Your task to perform on an android device: Open settings on Google Maps Image 0: 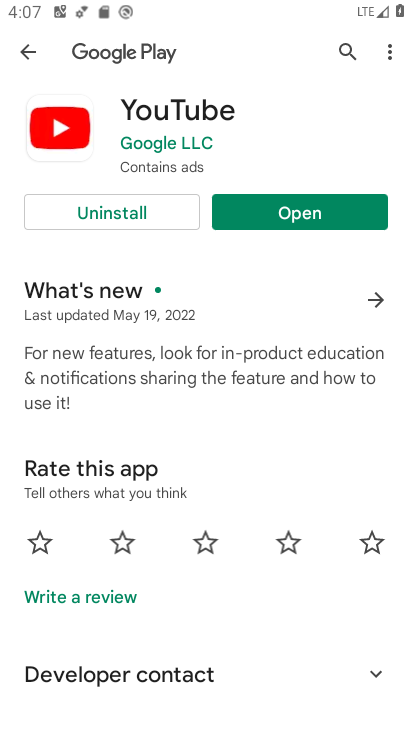
Step 0: press home button
Your task to perform on an android device: Open settings on Google Maps Image 1: 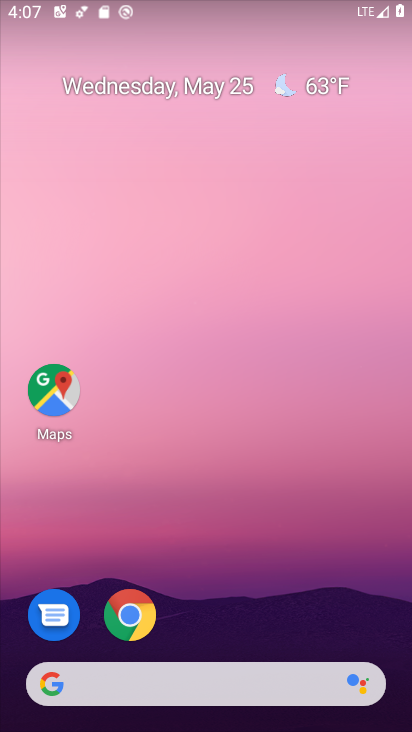
Step 1: click (57, 378)
Your task to perform on an android device: Open settings on Google Maps Image 2: 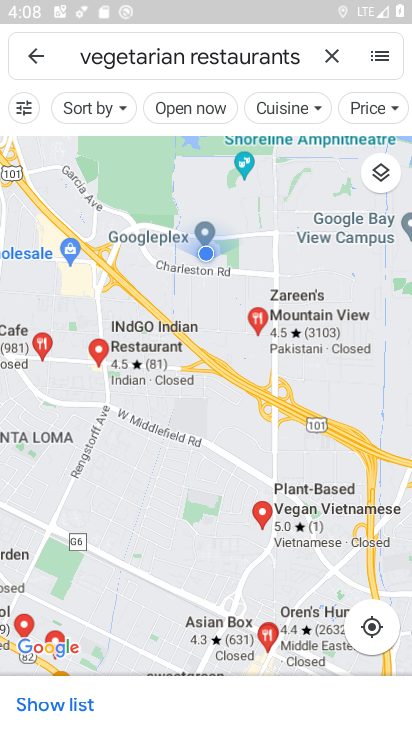
Step 2: click (334, 47)
Your task to perform on an android device: Open settings on Google Maps Image 3: 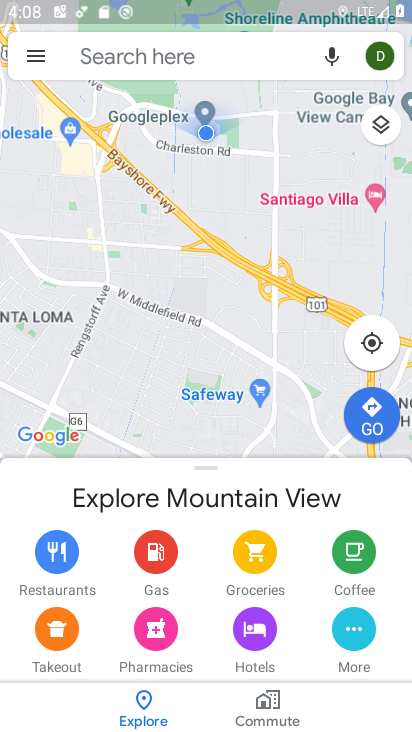
Step 3: click (38, 51)
Your task to perform on an android device: Open settings on Google Maps Image 4: 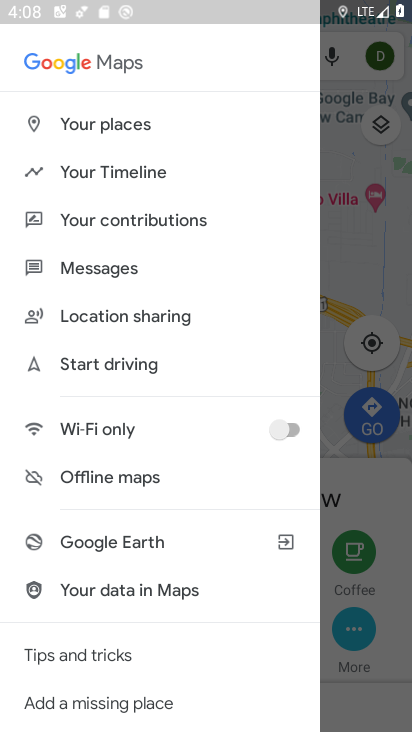
Step 4: drag from (165, 607) to (168, 23)
Your task to perform on an android device: Open settings on Google Maps Image 5: 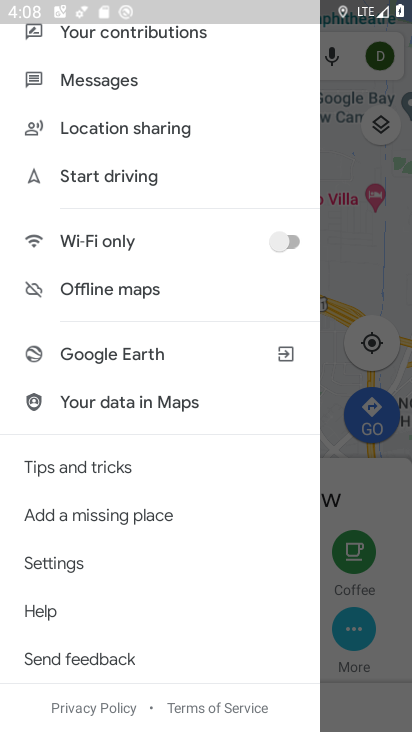
Step 5: click (74, 569)
Your task to perform on an android device: Open settings on Google Maps Image 6: 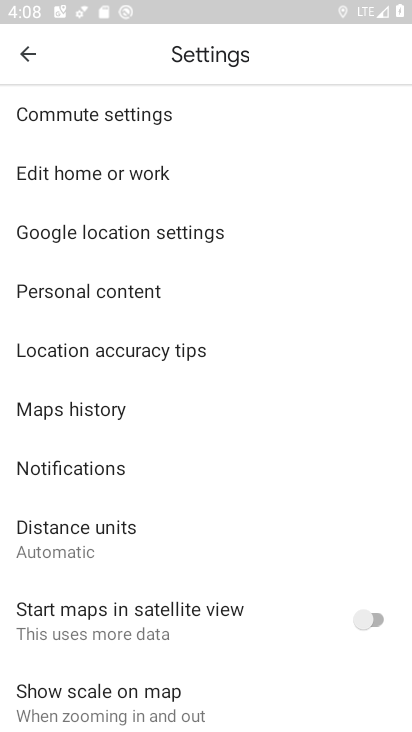
Step 6: task complete